Your task to perform on an android device: Open Chrome and go to the settings page Image 0: 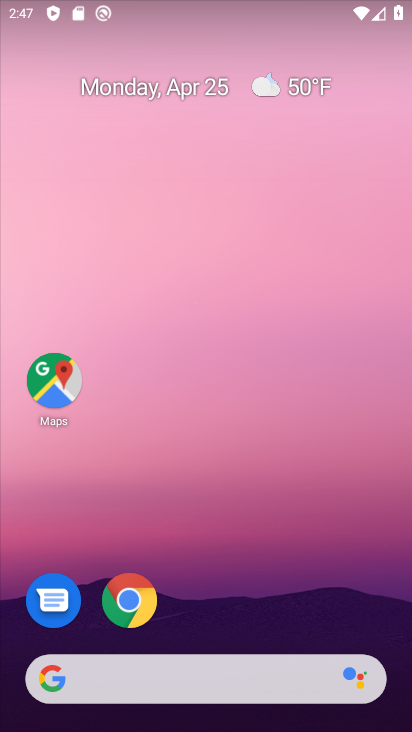
Step 0: drag from (356, 602) to (333, 217)
Your task to perform on an android device: Open Chrome and go to the settings page Image 1: 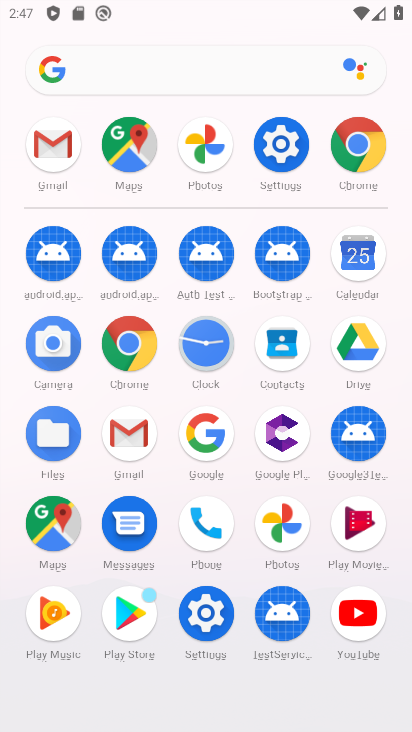
Step 1: click (356, 122)
Your task to perform on an android device: Open Chrome and go to the settings page Image 2: 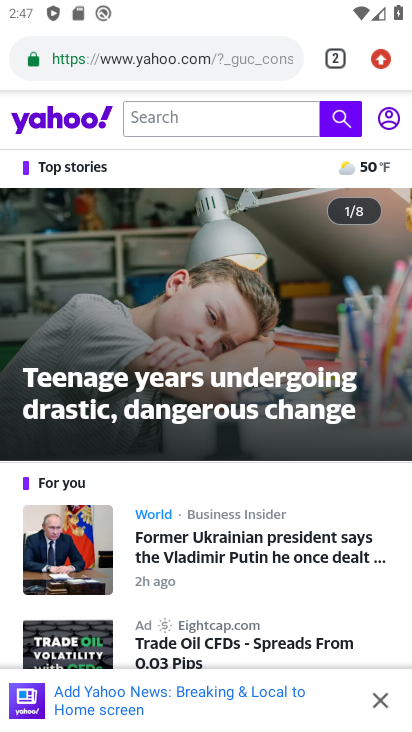
Step 2: task complete